Your task to perform on an android device: add a contact in the contacts app Image 0: 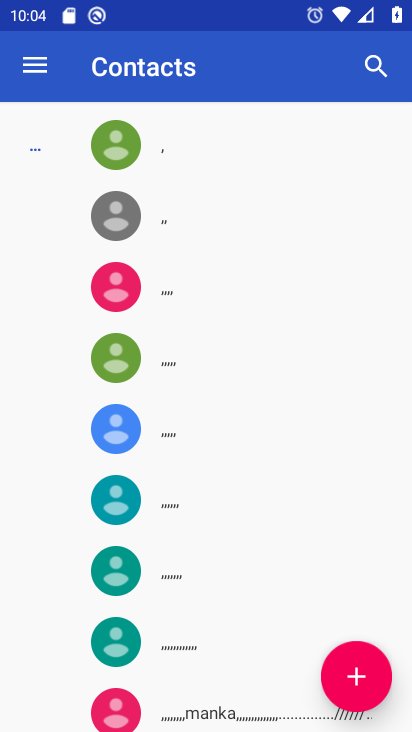
Step 0: click (360, 668)
Your task to perform on an android device: add a contact in the contacts app Image 1: 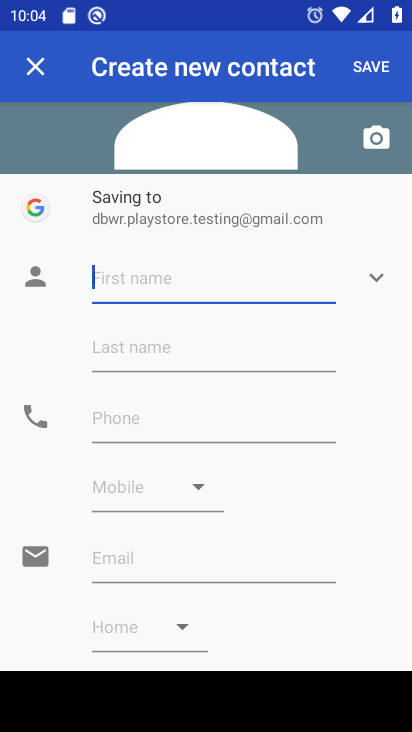
Step 1: type "Rajeshwaei"
Your task to perform on an android device: add a contact in the contacts app Image 2: 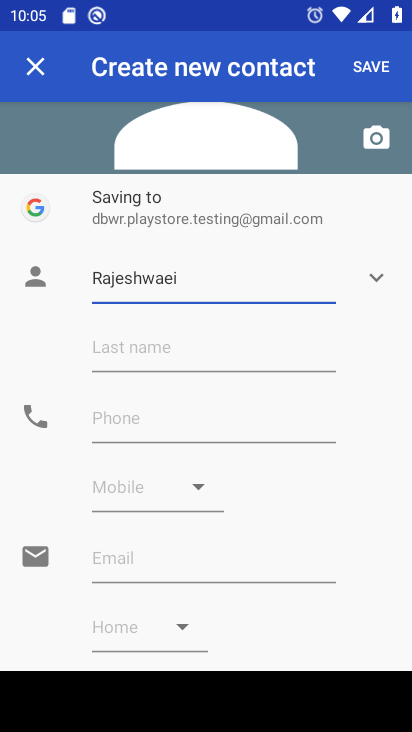
Step 2: click (273, 421)
Your task to perform on an android device: add a contact in the contacts app Image 3: 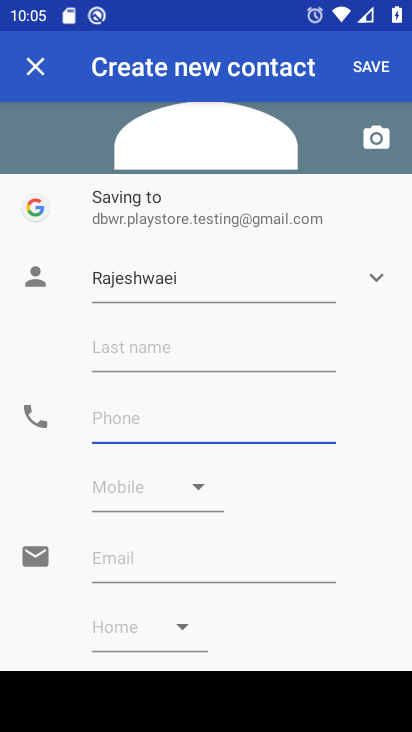
Step 3: type "01133557799"
Your task to perform on an android device: add a contact in the contacts app Image 4: 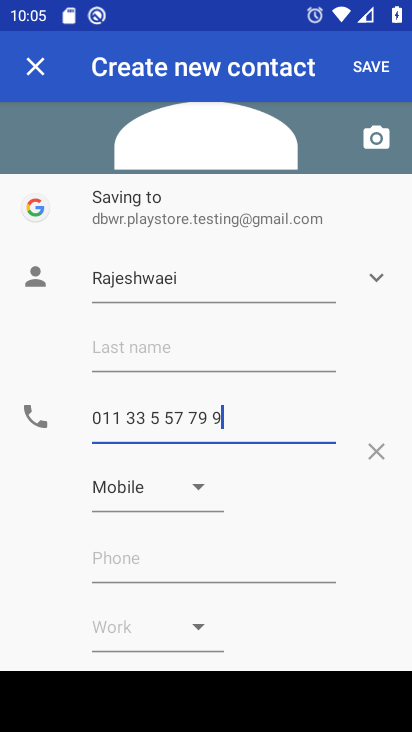
Step 4: click (386, 64)
Your task to perform on an android device: add a contact in the contacts app Image 5: 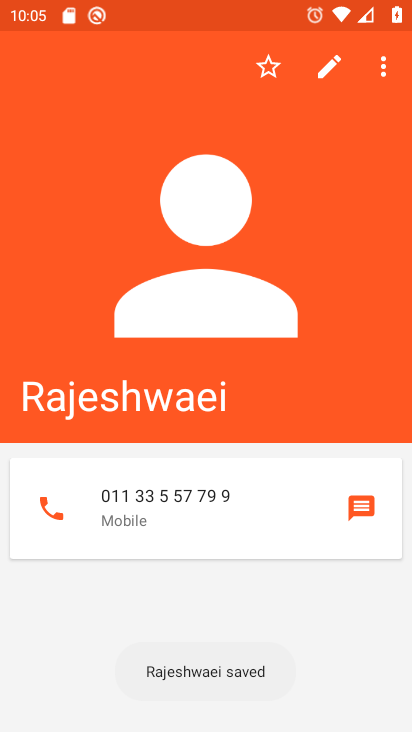
Step 5: task complete